Your task to perform on an android device: empty trash in google photos Image 0: 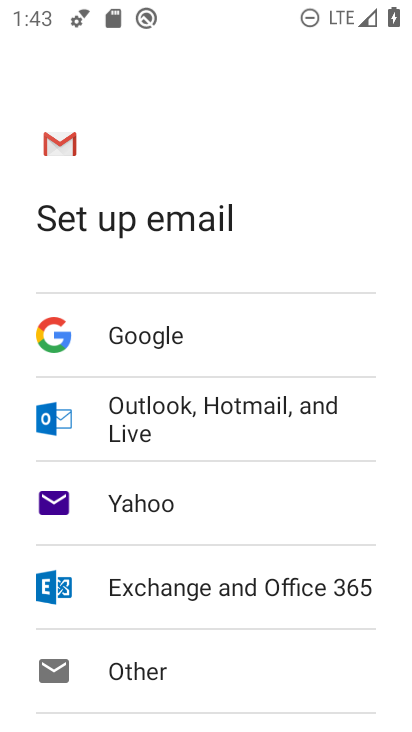
Step 0: press home button
Your task to perform on an android device: empty trash in google photos Image 1: 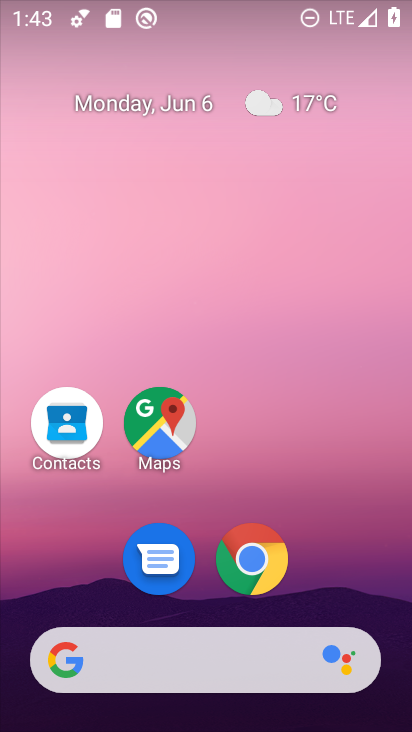
Step 1: drag from (159, 657) to (223, 122)
Your task to perform on an android device: empty trash in google photos Image 2: 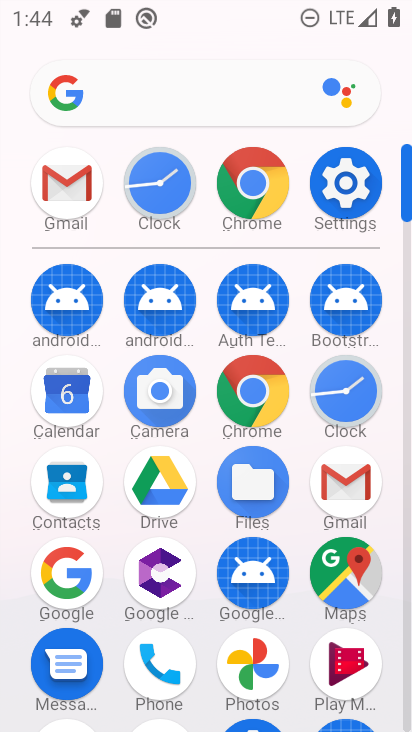
Step 2: drag from (237, 550) to (295, 202)
Your task to perform on an android device: empty trash in google photos Image 3: 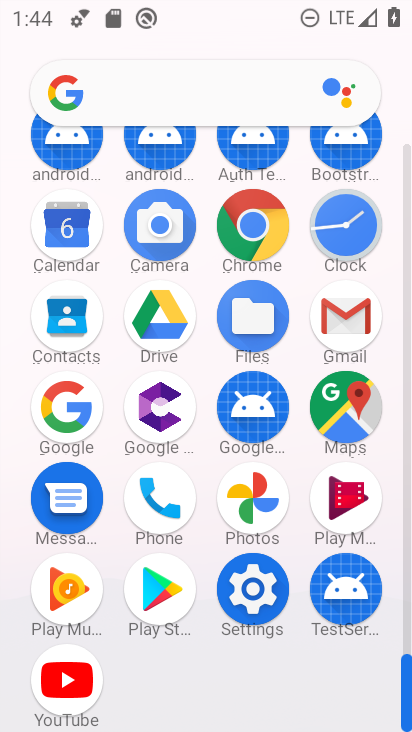
Step 3: click (269, 512)
Your task to perform on an android device: empty trash in google photos Image 4: 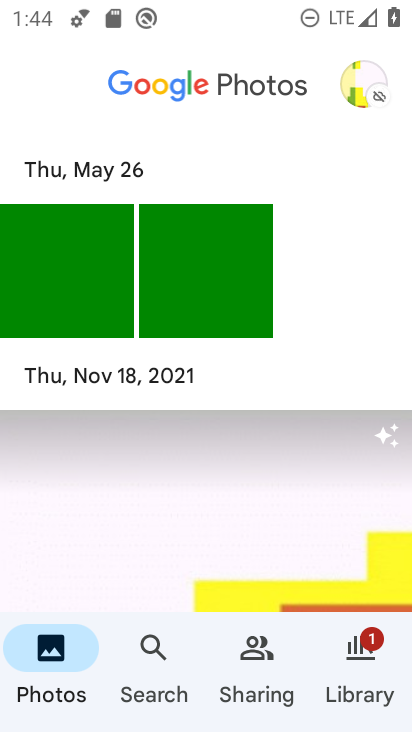
Step 4: click (369, 89)
Your task to perform on an android device: empty trash in google photos Image 5: 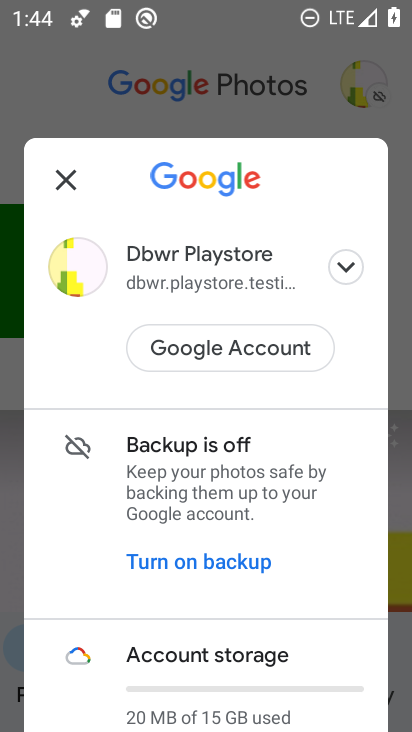
Step 5: task complete